Your task to perform on an android device: Open settings on Google Maps Image 0: 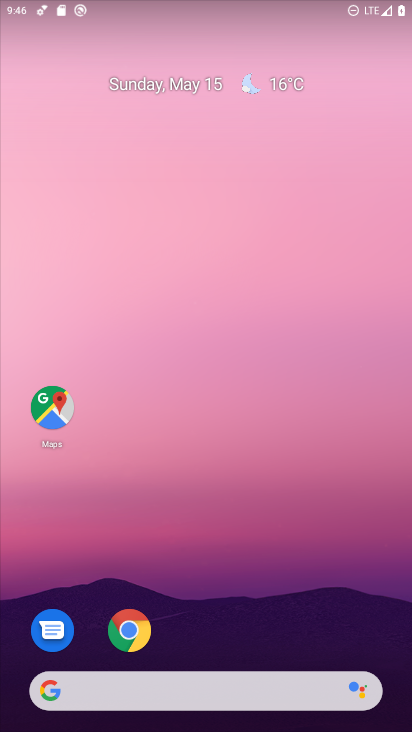
Step 0: drag from (196, 668) to (223, 299)
Your task to perform on an android device: Open settings on Google Maps Image 1: 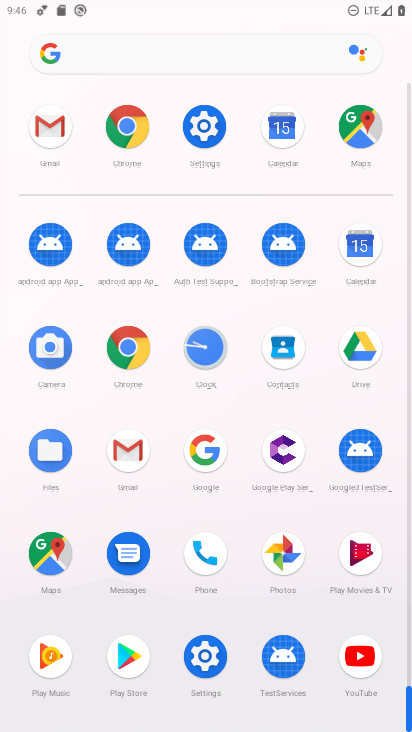
Step 1: click (47, 544)
Your task to perform on an android device: Open settings on Google Maps Image 2: 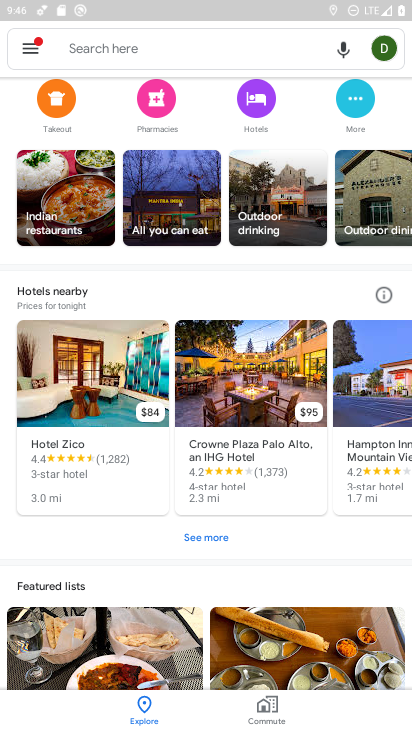
Step 2: click (26, 56)
Your task to perform on an android device: Open settings on Google Maps Image 3: 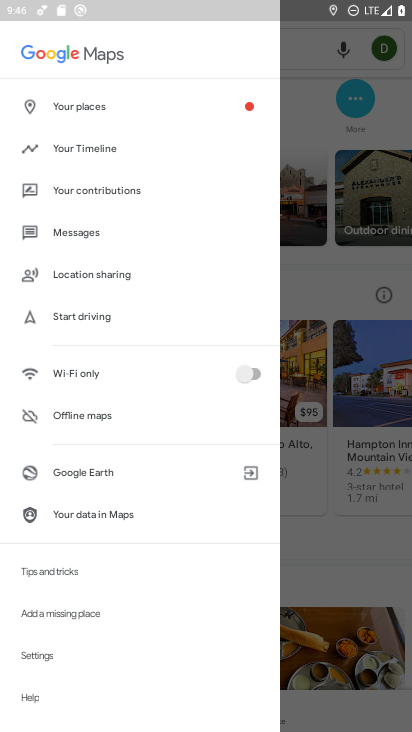
Step 3: click (46, 657)
Your task to perform on an android device: Open settings on Google Maps Image 4: 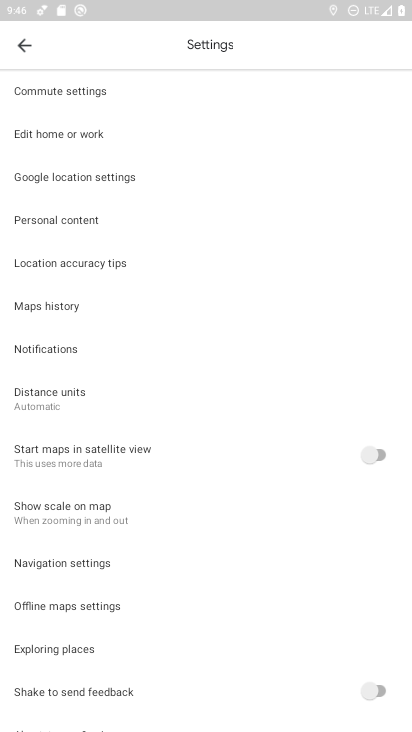
Step 4: task complete